Your task to perform on an android device: Open location settings Image 0: 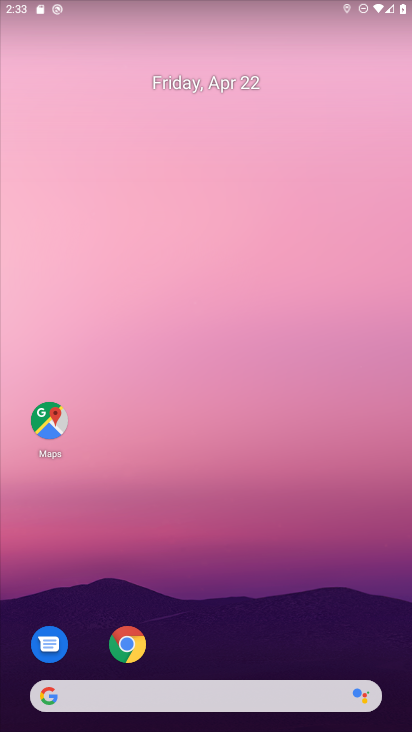
Step 0: drag from (261, 582) to (285, 120)
Your task to perform on an android device: Open location settings Image 1: 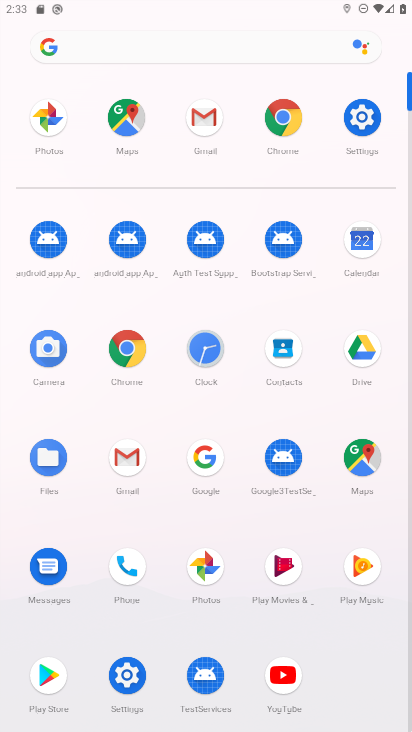
Step 1: click (369, 123)
Your task to perform on an android device: Open location settings Image 2: 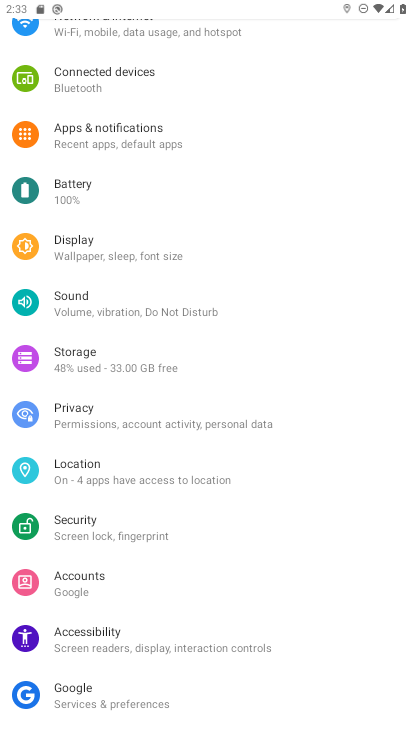
Step 2: drag from (230, 630) to (322, 100)
Your task to perform on an android device: Open location settings Image 3: 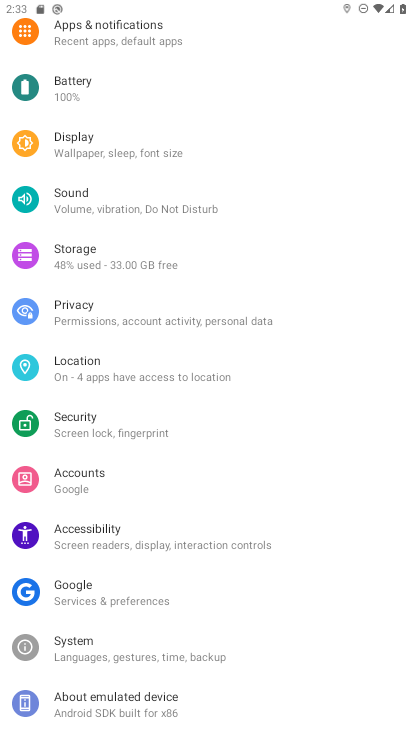
Step 3: drag from (117, 124) to (149, 396)
Your task to perform on an android device: Open location settings Image 4: 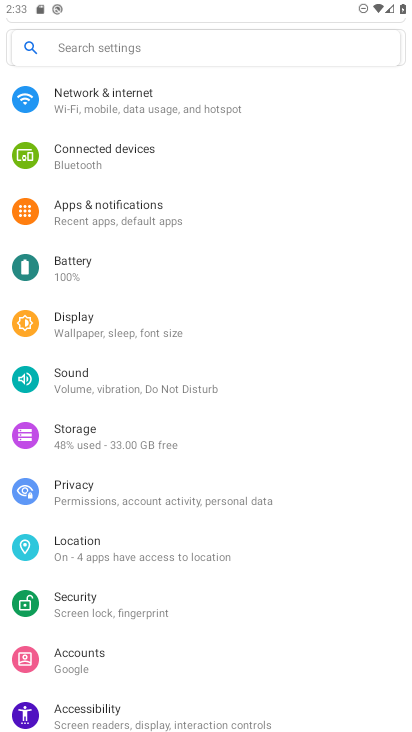
Step 4: click (89, 538)
Your task to perform on an android device: Open location settings Image 5: 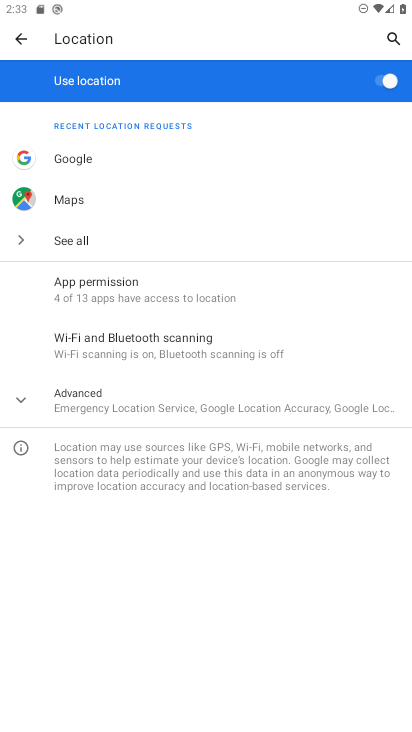
Step 5: task complete